Your task to perform on an android device: refresh tabs in the chrome app Image 0: 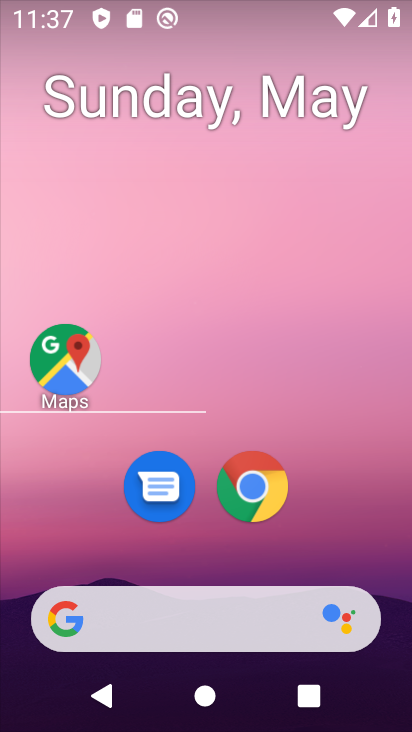
Step 0: drag from (341, 215) to (304, 121)
Your task to perform on an android device: refresh tabs in the chrome app Image 1: 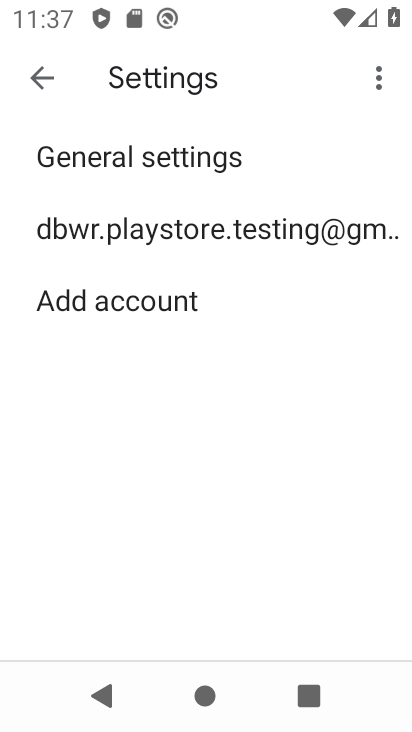
Step 1: press home button
Your task to perform on an android device: refresh tabs in the chrome app Image 2: 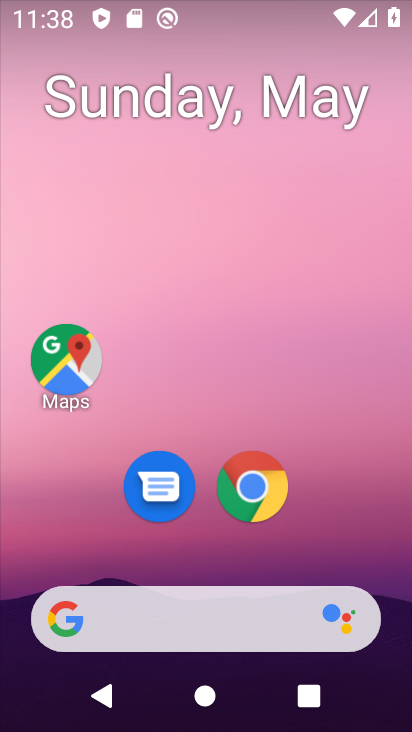
Step 2: click (257, 510)
Your task to perform on an android device: refresh tabs in the chrome app Image 3: 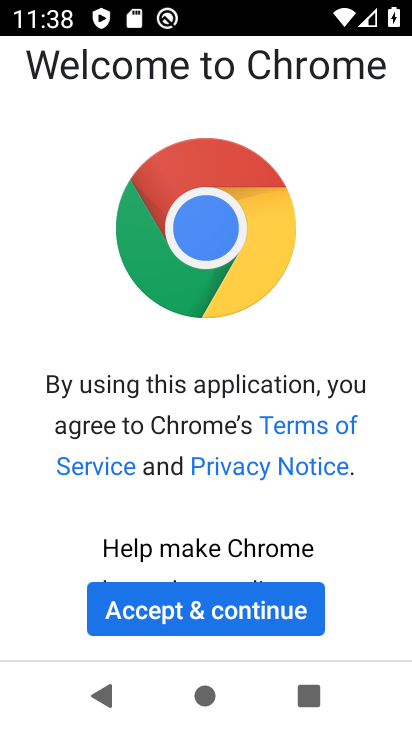
Step 3: click (234, 607)
Your task to perform on an android device: refresh tabs in the chrome app Image 4: 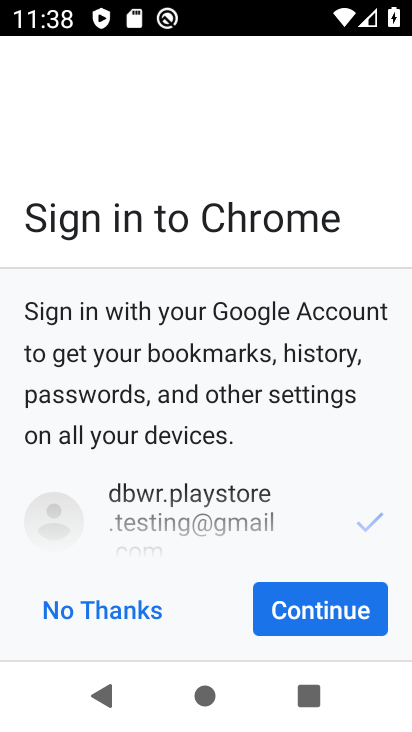
Step 4: click (342, 618)
Your task to perform on an android device: refresh tabs in the chrome app Image 5: 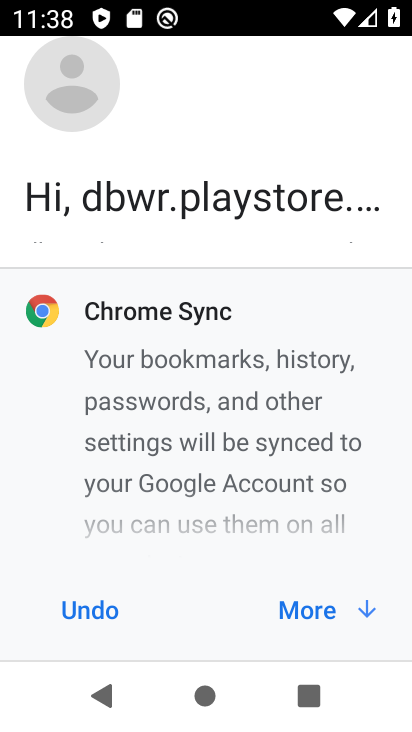
Step 5: click (342, 618)
Your task to perform on an android device: refresh tabs in the chrome app Image 6: 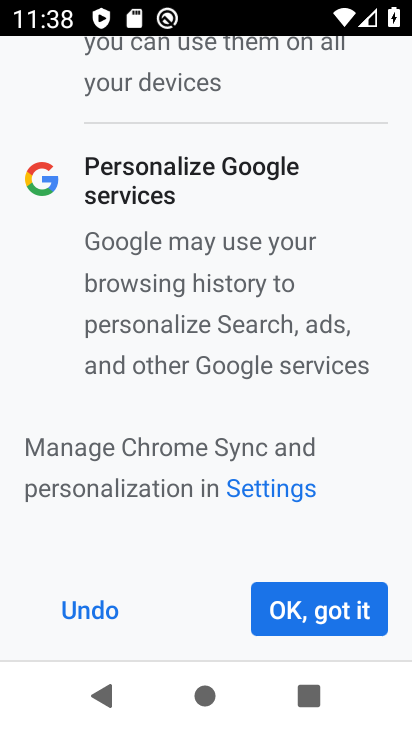
Step 6: click (342, 618)
Your task to perform on an android device: refresh tabs in the chrome app Image 7: 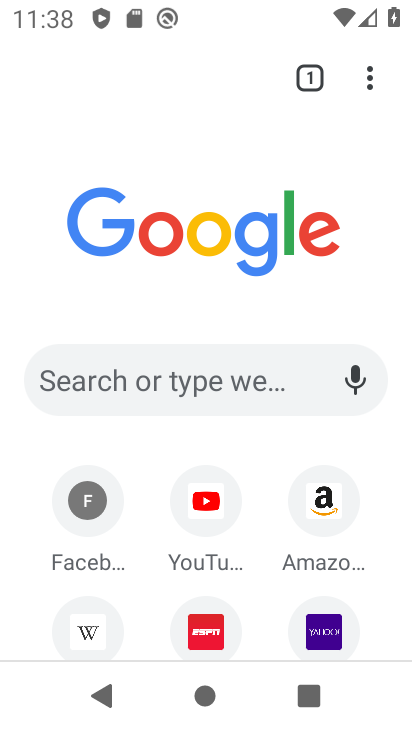
Step 7: click (373, 88)
Your task to perform on an android device: refresh tabs in the chrome app Image 8: 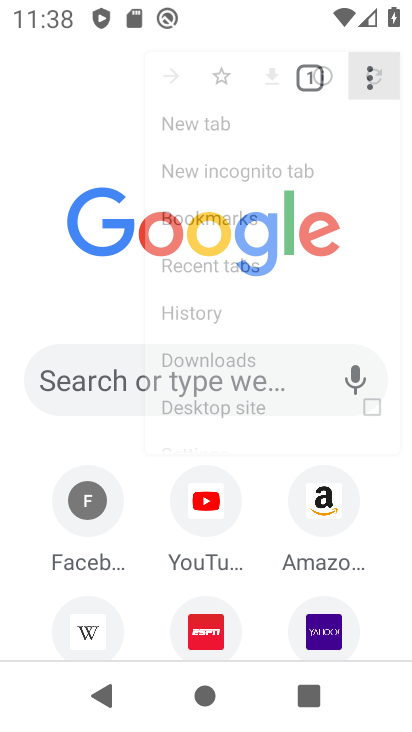
Step 8: click (370, 85)
Your task to perform on an android device: refresh tabs in the chrome app Image 9: 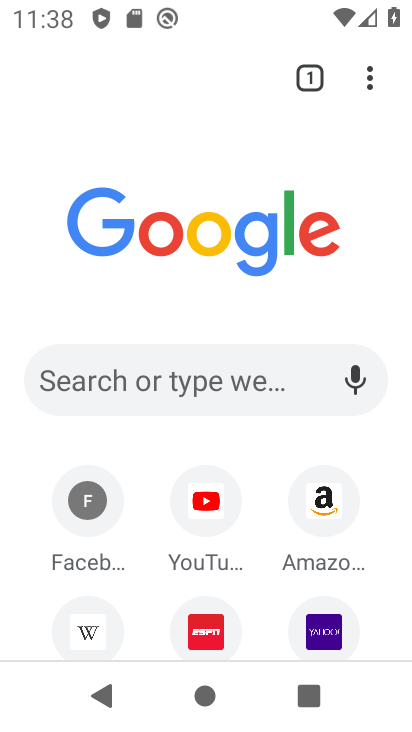
Step 9: task complete